Your task to perform on an android device: Clear the shopping cart on target. Search for acer nitro on target, select the first entry, add it to the cart, then select checkout. Image 0: 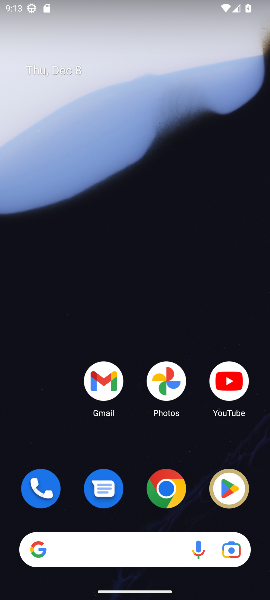
Step 0: drag from (118, 513) to (132, 142)
Your task to perform on an android device: Clear the shopping cart on target. Search for acer nitro on target, select the first entry, add it to the cart, then select checkout. Image 1: 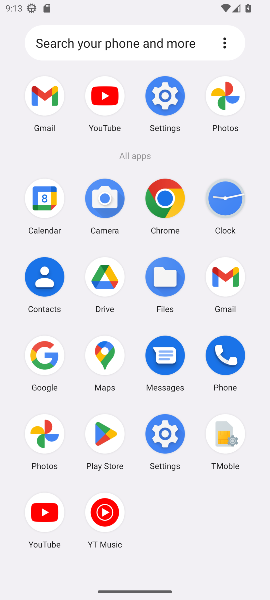
Step 1: click (33, 342)
Your task to perform on an android device: Clear the shopping cart on target. Search for acer nitro on target, select the first entry, add it to the cart, then select checkout. Image 2: 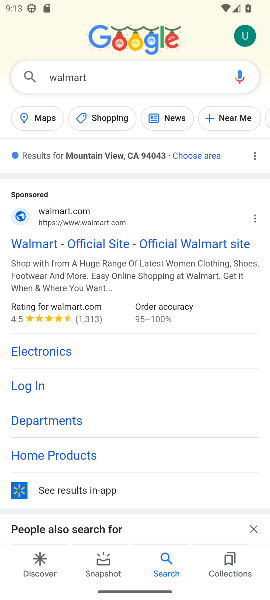
Step 2: click (86, 74)
Your task to perform on an android device: Clear the shopping cart on target. Search for acer nitro on target, select the first entry, add it to the cart, then select checkout. Image 3: 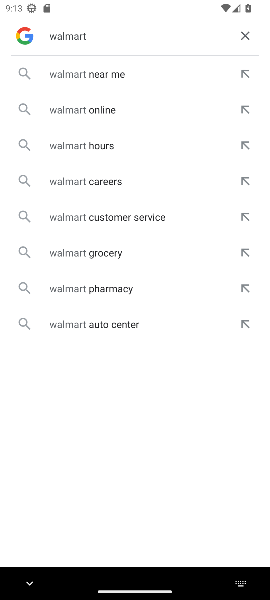
Step 3: click (241, 34)
Your task to perform on an android device: Clear the shopping cart on target. Search for acer nitro on target, select the first entry, add it to the cart, then select checkout. Image 4: 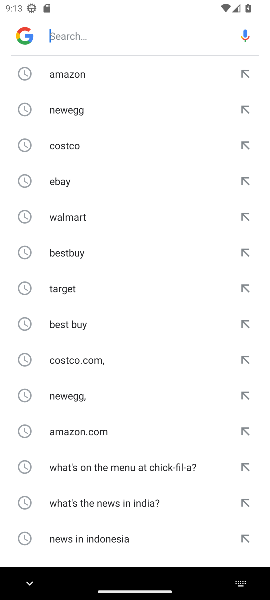
Step 4: click (65, 289)
Your task to perform on an android device: Clear the shopping cart on target. Search for acer nitro on target, select the first entry, add it to the cart, then select checkout. Image 5: 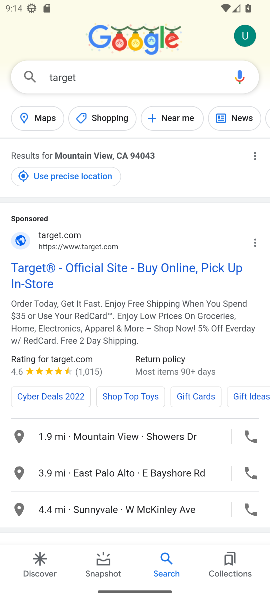
Step 5: click (71, 268)
Your task to perform on an android device: Clear the shopping cart on target. Search for acer nitro on target, select the first entry, add it to the cart, then select checkout. Image 6: 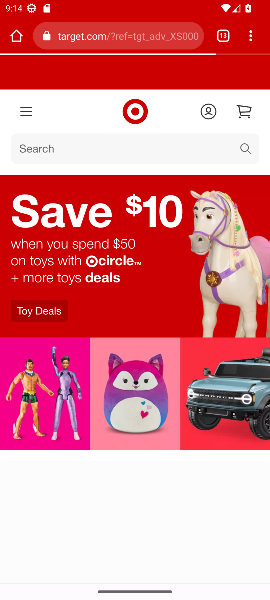
Step 6: click (106, 145)
Your task to perform on an android device: Clear the shopping cart on target. Search for acer nitro on target, select the first entry, add it to the cart, then select checkout. Image 7: 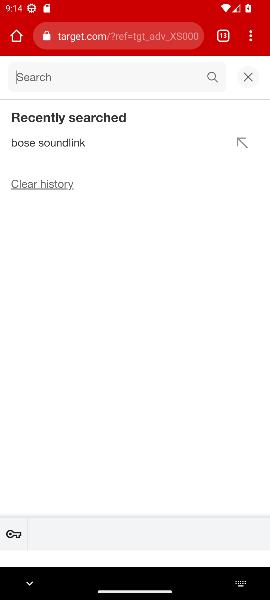
Step 7: click (252, 75)
Your task to perform on an android device: Clear the shopping cart on target. Search for acer nitro on target, select the first entry, add it to the cart, then select checkout. Image 8: 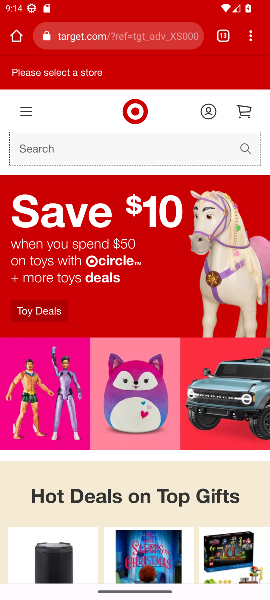
Step 8: click (138, 149)
Your task to perform on an android device: Clear the shopping cart on target. Search for acer nitro on target, select the first entry, add it to the cart, then select checkout. Image 9: 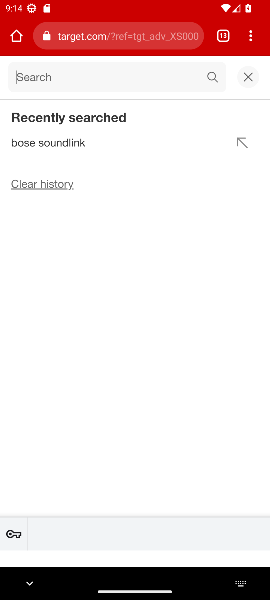
Step 9: type "acer nitro"
Your task to perform on an android device: Clear the shopping cart on target. Search for acer nitro on target, select the first entry, add it to the cart, then select checkout. Image 10: 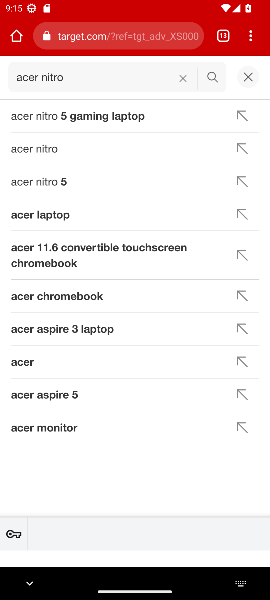
Step 10: click (206, 73)
Your task to perform on an android device: Clear the shopping cart on target. Search for acer nitro on target, select the first entry, add it to the cart, then select checkout. Image 11: 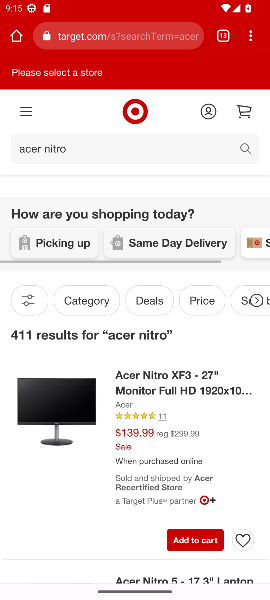
Step 11: click (206, 544)
Your task to perform on an android device: Clear the shopping cart on target. Search for acer nitro on target, select the first entry, add it to the cart, then select checkout. Image 12: 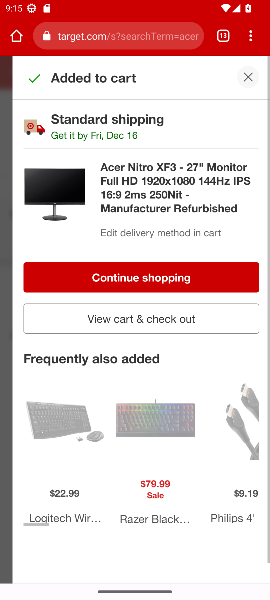
Step 12: click (138, 315)
Your task to perform on an android device: Clear the shopping cart on target. Search for acer nitro on target, select the first entry, add it to the cart, then select checkout. Image 13: 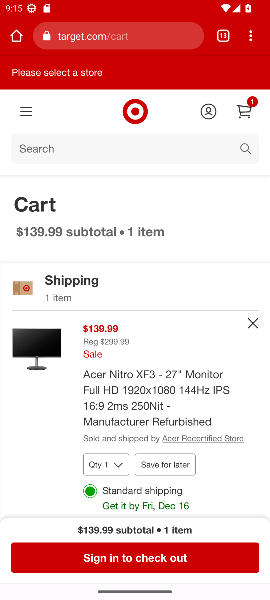
Step 13: click (157, 557)
Your task to perform on an android device: Clear the shopping cart on target. Search for acer nitro on target, select the first entry, add it to the cart, then select checkout. Image 14: 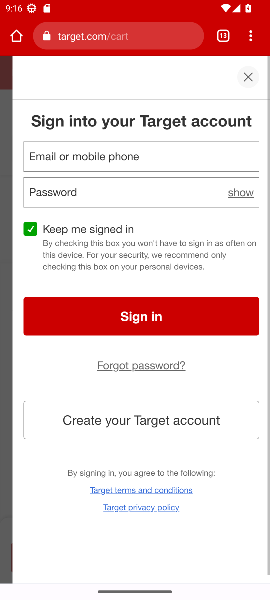
Step 14: task complete